Your task to perform on an android device: Do I have any events tomorrow? Image 0: 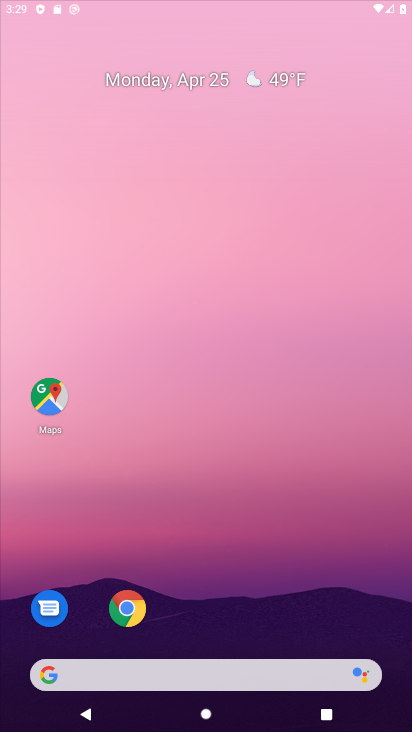
Step 0: drag from (292, 344) to (330, 144)
Your task to perform on an android device: Do I have any events tomorrow? Image 1: 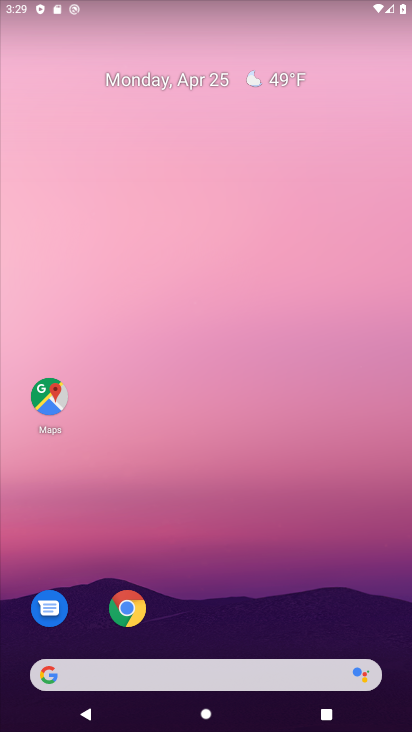
Step 1: drag from (271, 500) to (292, 164)
Your task to perform on an android device: Do I have any events tomorrow? Image 2: 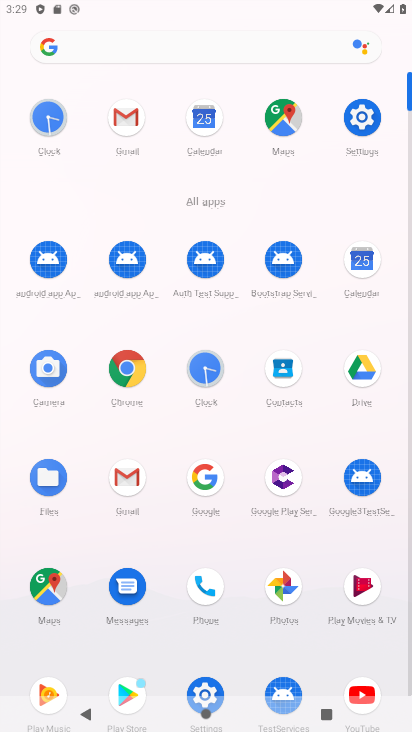
Step 2: click (368, 275)
Your task to perform on an android device: Do I have any events tomorrow? Image 3: 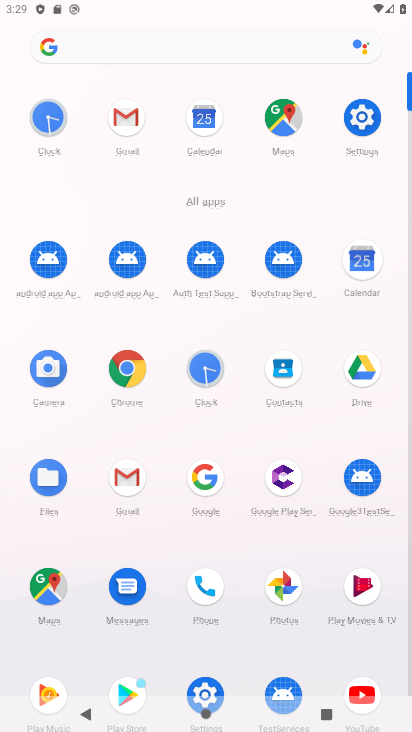
Step 3: click (368, 275)
Your task to perform on an android device: Do I have any events tomorrow? Image 4: 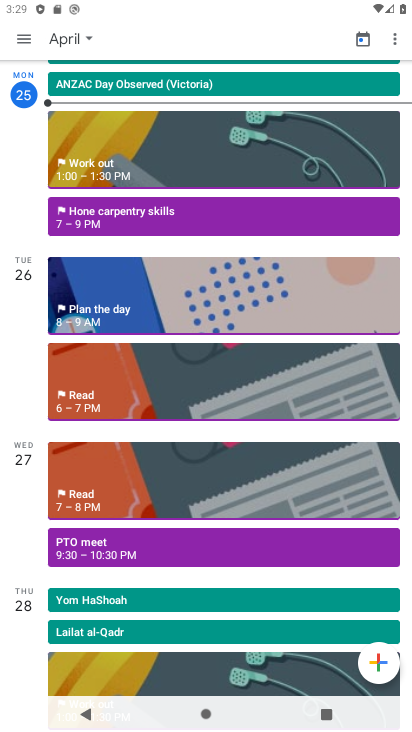
Step 4: task complete